Your task to perform on an android device: Open calendar and show me the third week of next month Image 0: 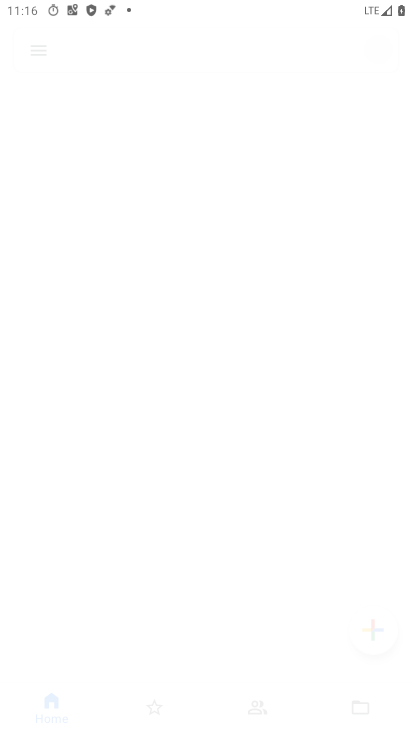
Step 0: click (140, 628)
Your task to perform on an android device: Open calendar and show me the third week of next month Image 1: 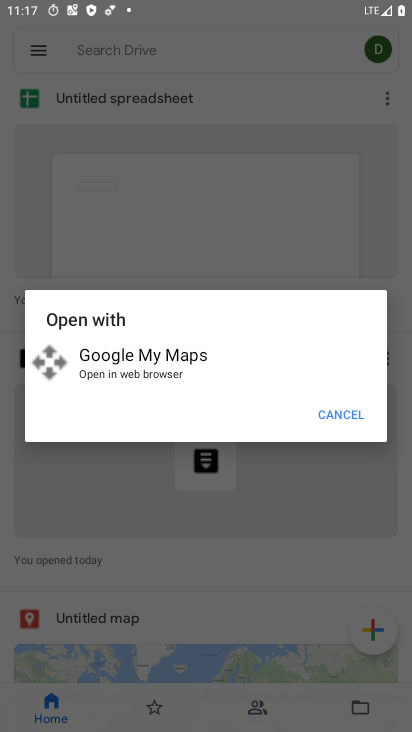
Step 1: press back button
Your task to perform on an android device: Open calendar and show me the third week of next month Image 2: 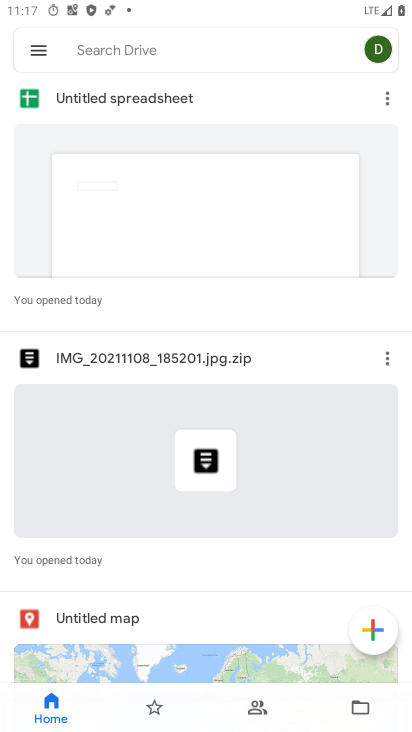
Step 2: press home button
Your task to perform on an android device: Open calendar and show me the third week of next month Image 3: 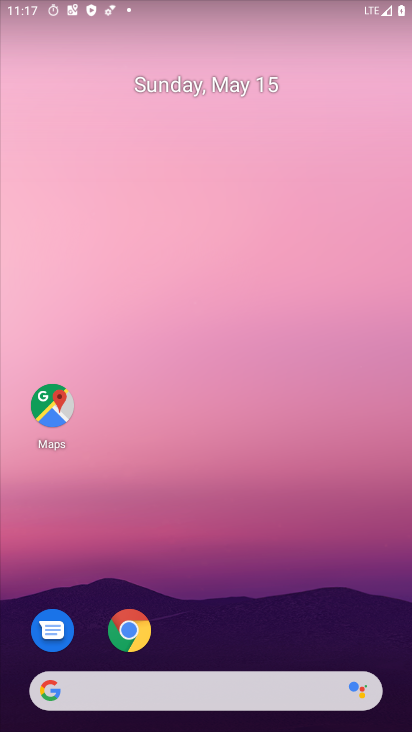
Step 3: drag from (264, 591) to (335, 54)
Your task to perform on an android device: Open calendar and show me the third week of next month Image 4: 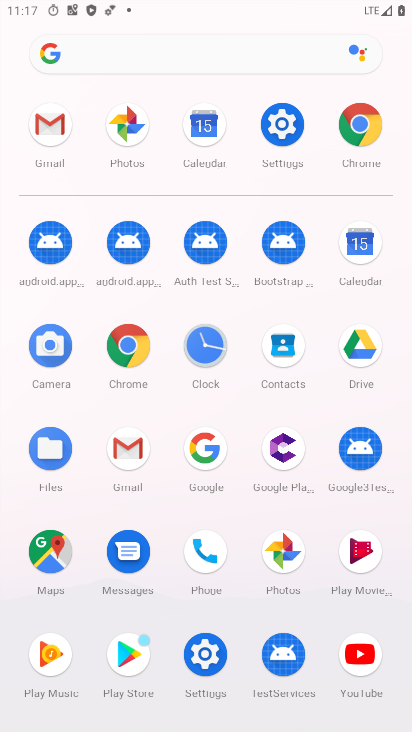
Step 4: click (372, 249)
Your task to perform on an android device: Open calendar and show me the third week of next month Image 5: 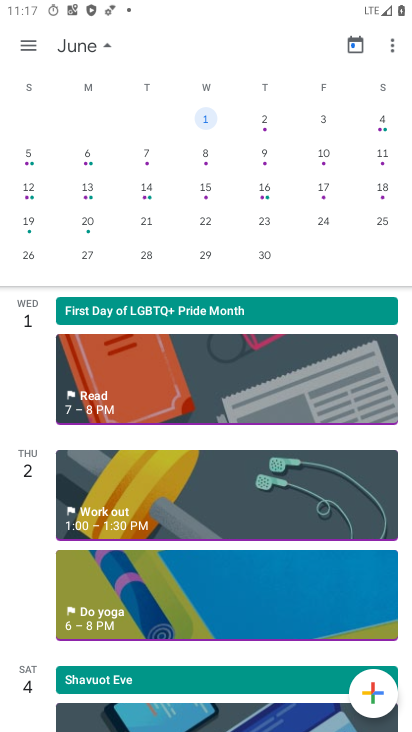
Step 5: click (87, 190)
Your task to perform on an android device: Open calendar and show me the third week of next month Image 6: 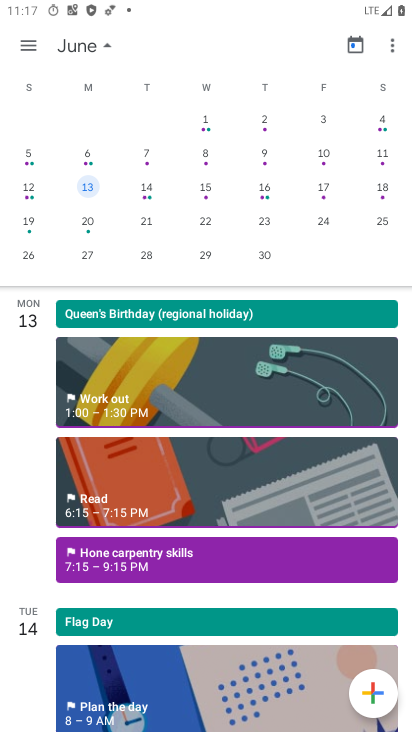
Step 6: task complete